Your task to perform on an android device: Open display settings Image 0: 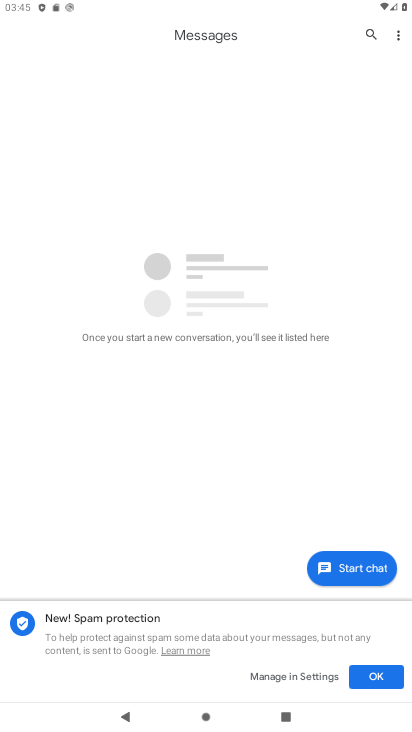
Step 0: press home button
Your task to perform on an android device: Open display settings Image 1: 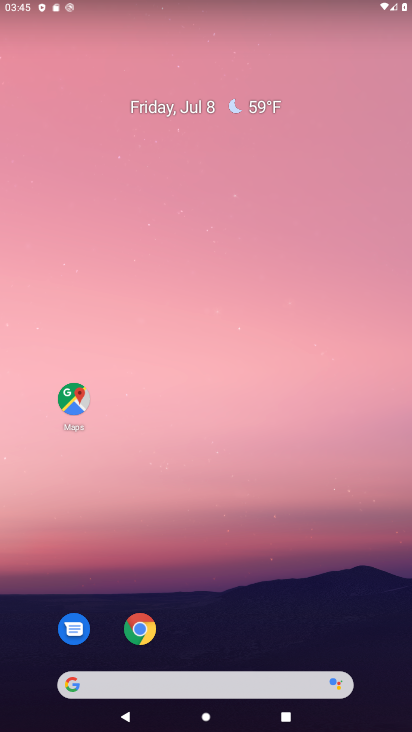
Step 1: drag from (218, 632) to (198, 229)
Your task to perform on an android device: Open display settings Image 2: 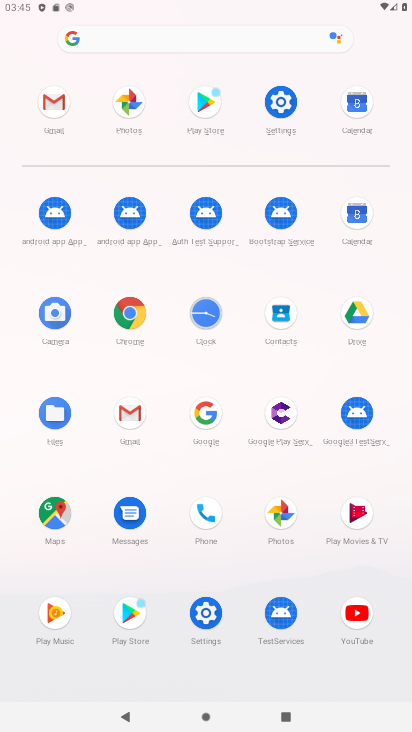
Step 2: click (281, 89)
Your task to perform on an android device: Open display settings Image 3: 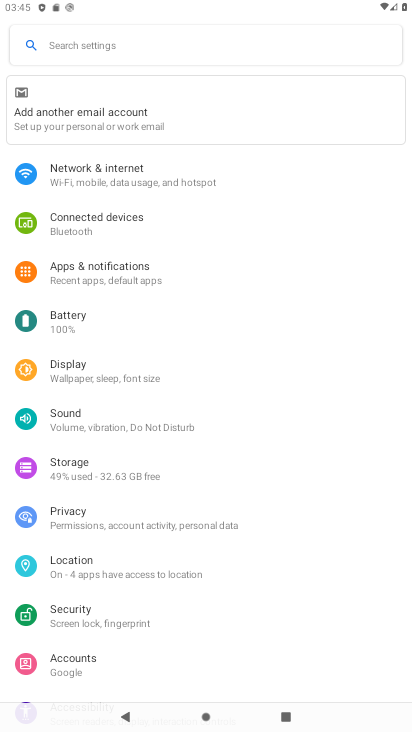
Step 3: click (90, 362)
Your task to perform on an android device: Open display settings Image 4: 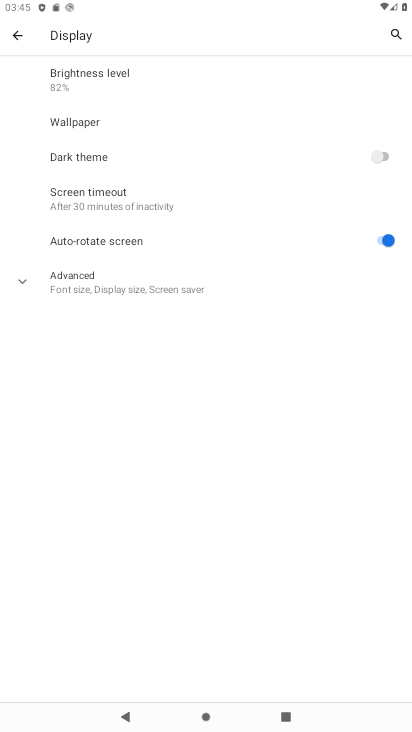
Step 4: click (24, 281)
Your task to perform on an android device: Open display settings Image 5: 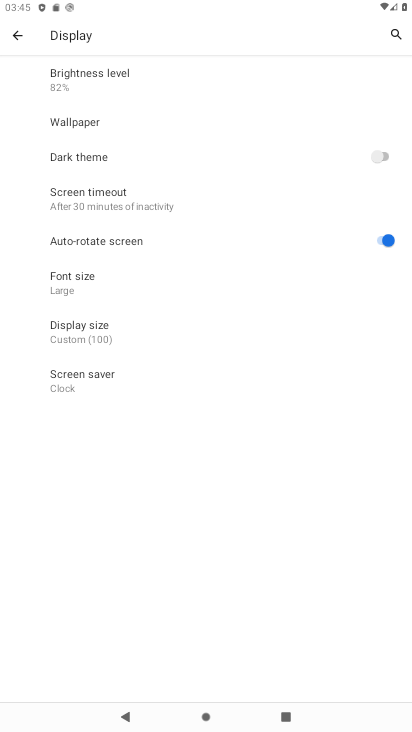
Step 5: task complete